Your task to perform on an android device: turn off improve location accuracy Image 0: 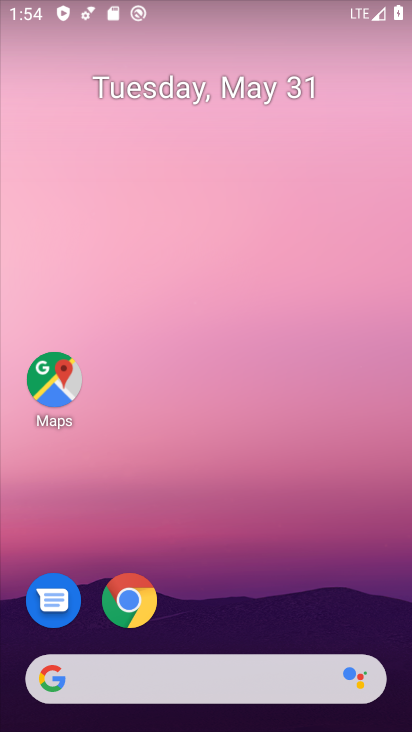
Step 0: drag from (246, 547) to (274, 2)
Your task to perform on an android device: turn off improve location accuracy Image 1: 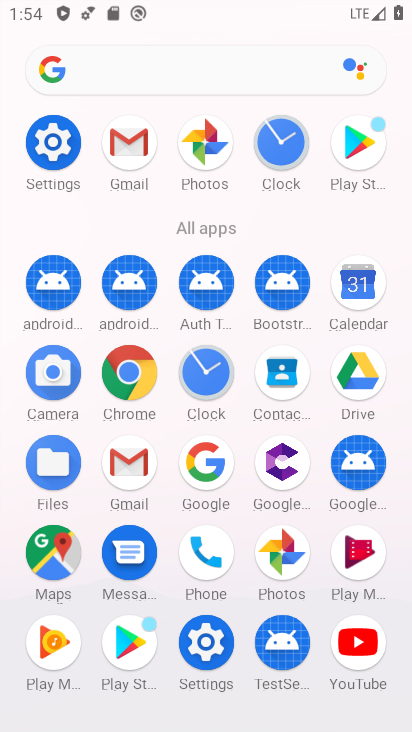
Step 1: click (207, 635)
Your task to perform on an android device: turn off improve location accuracy Image 2: 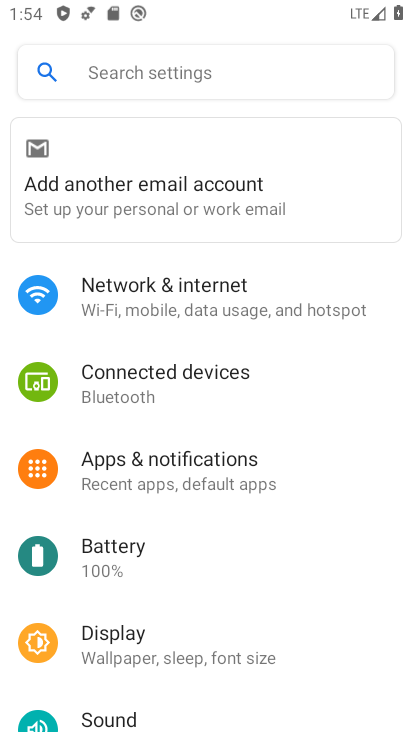
Step 2: drag from (170, 678) to (218, 197)
Your task to perform on an android device: turn off improve location accuracy Image 3: 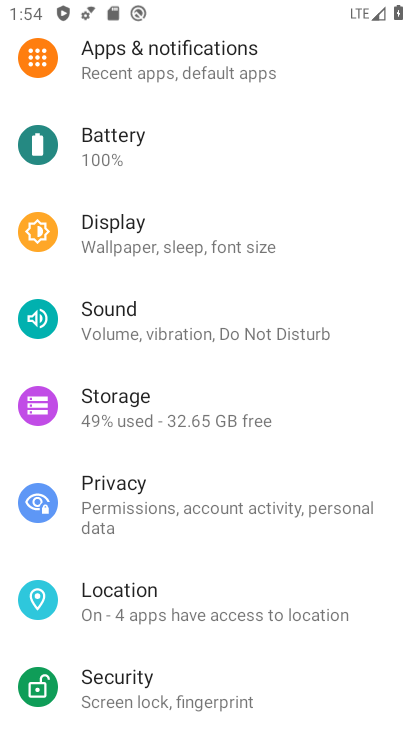
Step 3: click (174, 600)
Your task to perform on an android device: turn off improve location accuracy Image 4: 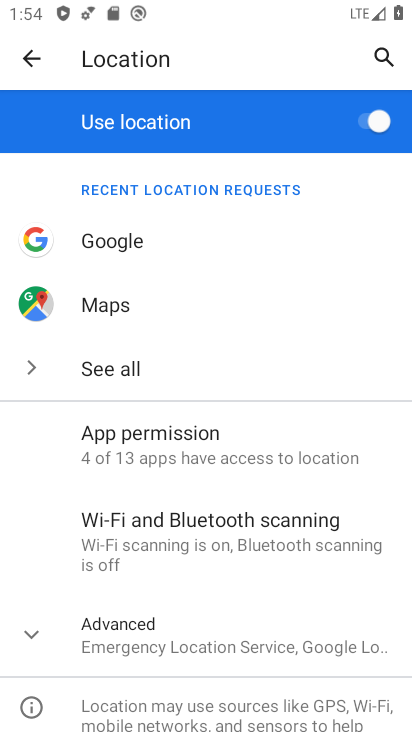
Step 4: click (92, 627)
Your task to perform on an android device: turn off improve location accuracy Image 5: 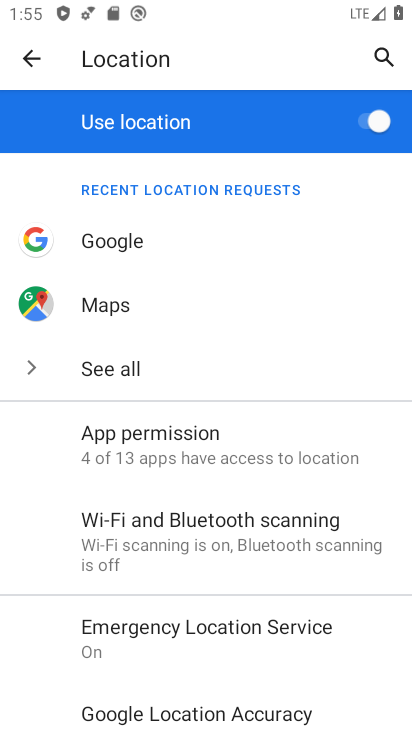
Step 5: click (237, 715)
Your task to perform on an android device: turn off improve location accuracy Image 6: 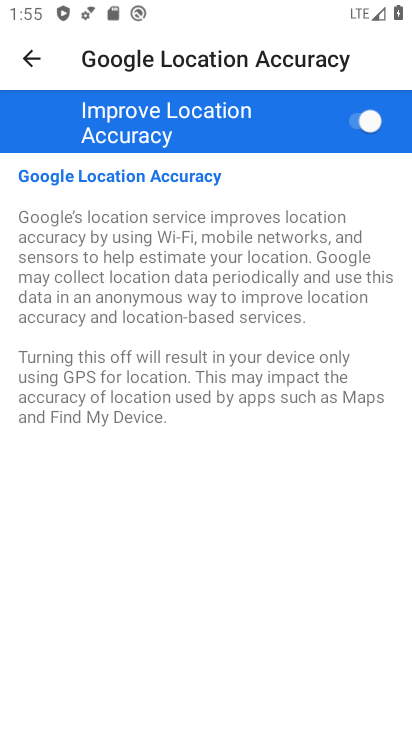
Step 6: click (354, 132)
Your task to perform on an android device: turn off improve location accuracy Image 7: 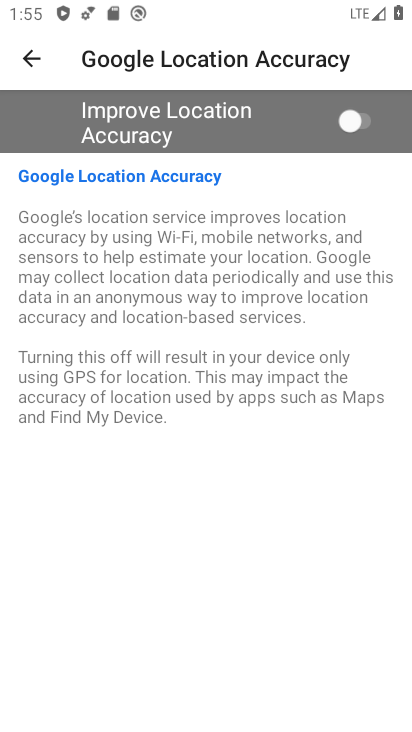
Step 7: task complete